Your task to perform on an android device: Go to network settings Image 0: 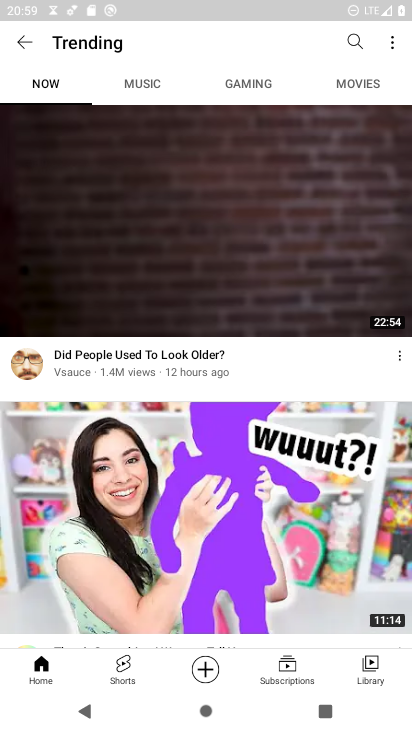
Step 0: press home button
Your task to perform on an android device: Go to network settings Image 1: 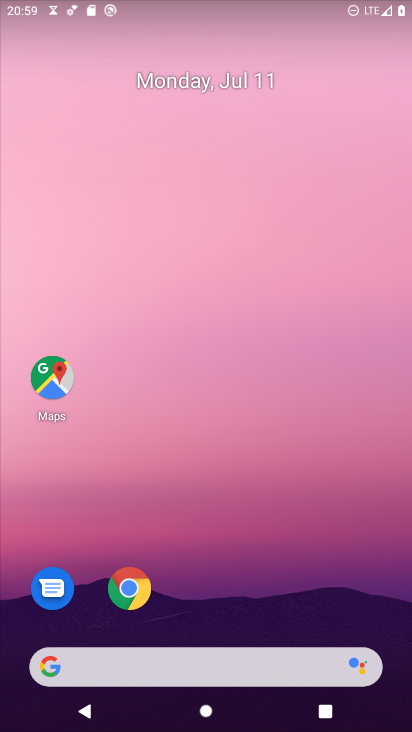
Step 1: drag from (235, 615) to (178, 1)
Your task to perform on an android device: Go to network settings Image 2: 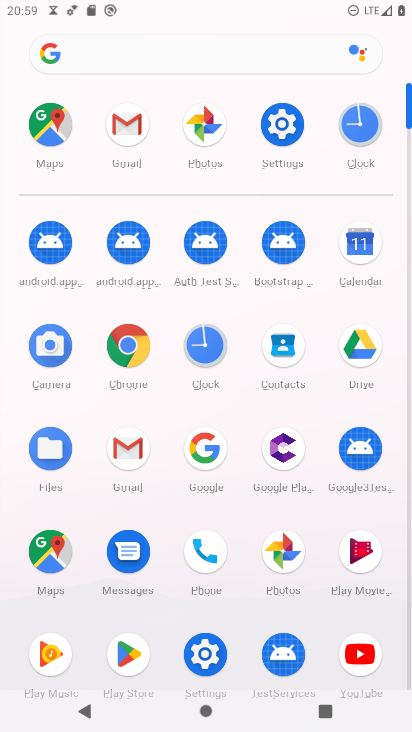
Step 2: click (281, 118)
Your task to perform on an android device: Go to network settings Image 3: 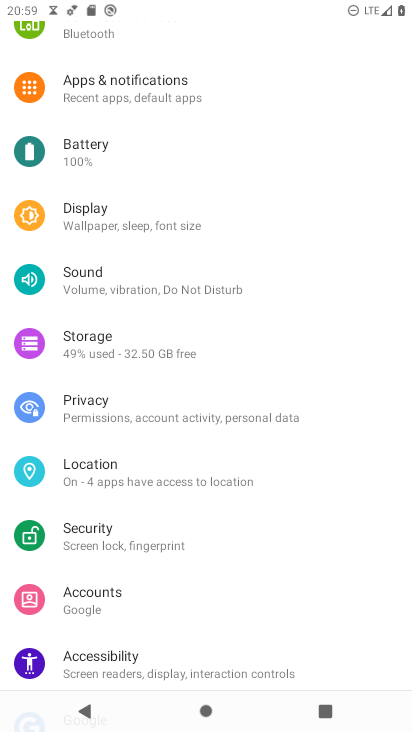
Step 3: drag from (251, 159) to (304, 592)
Your task to perform on an android device: Go to network settings Image 4: 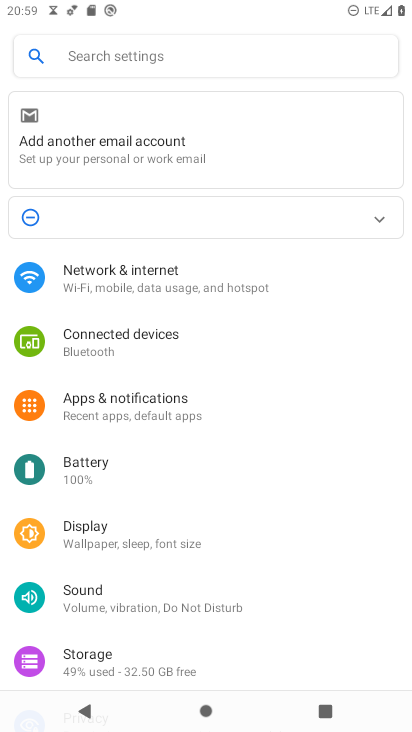
Step 4: click (135, 279)
Your task to perform on an android device: Go to network settings Image 5: 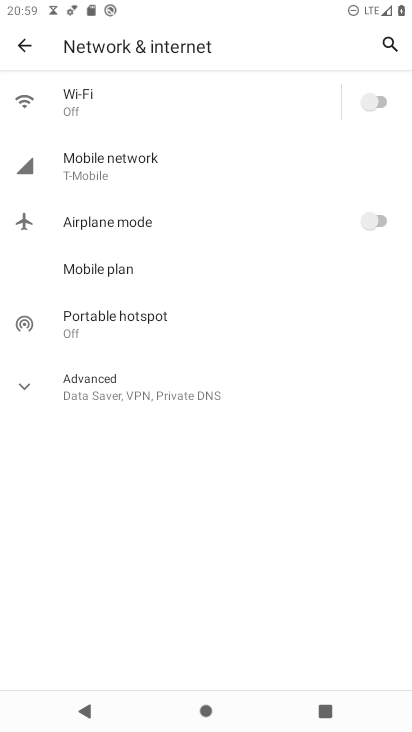
Step 5: task complete